Your task to perform on an android device: Open wifi settings Image 0: 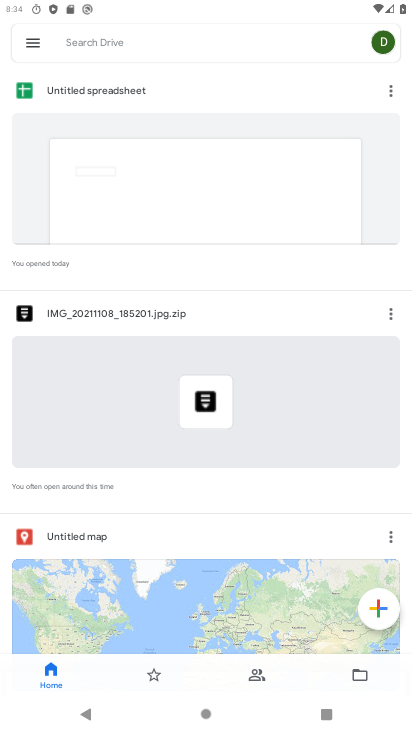
Step 0: press home button
Your task to perform on an android device: Open wifi settings Image 1: 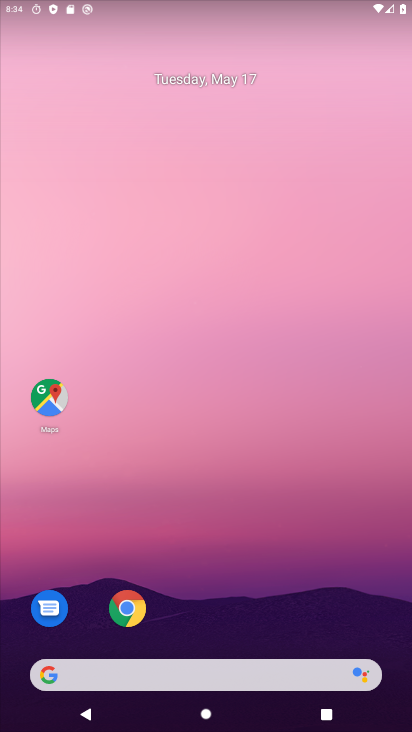
Step 1: drag from (316, 623) to (339, 166)
Your task to perform on an android device: Open wifi settings Image 2: 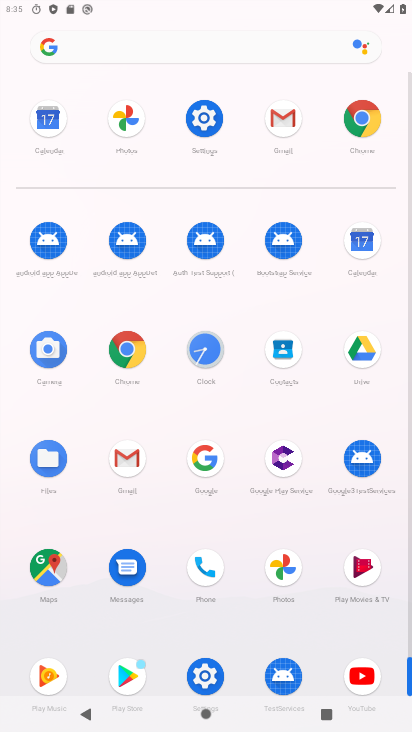
Step 2: click (203, 683)
Your task to perform on an android device: Open wifi settings Image 3: 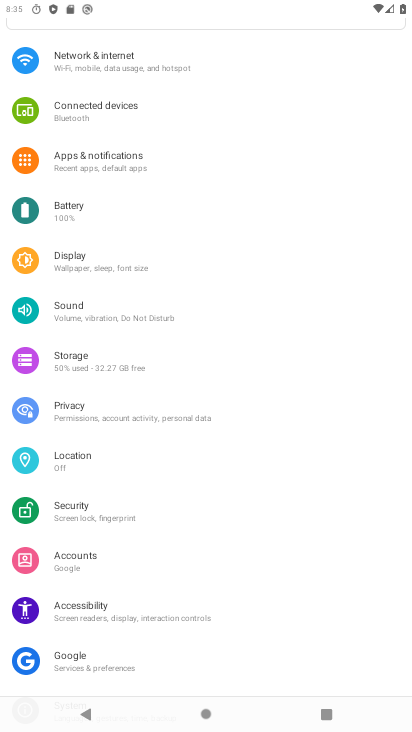
Step 3: drag from (179, 528) to (241, 175)
Your task to perform on an android device: Open wifi settings Image 4: 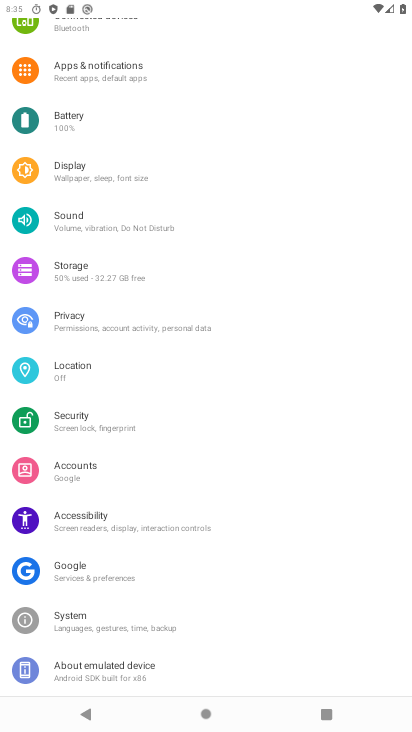
Step 4: drag from (225, 112) to (203, 655)
Your task to perform on an android device: Open wifi settings Image 5: 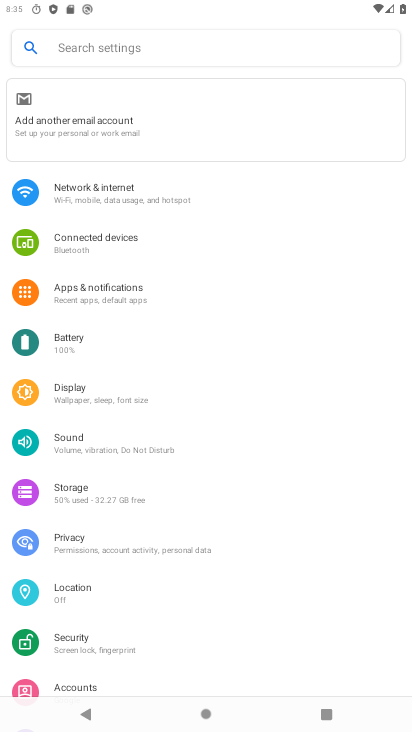
Step 5: drag from (216, 526) to (245, 217)
Your task to perform on an android device: Open wifi settings Image 6: 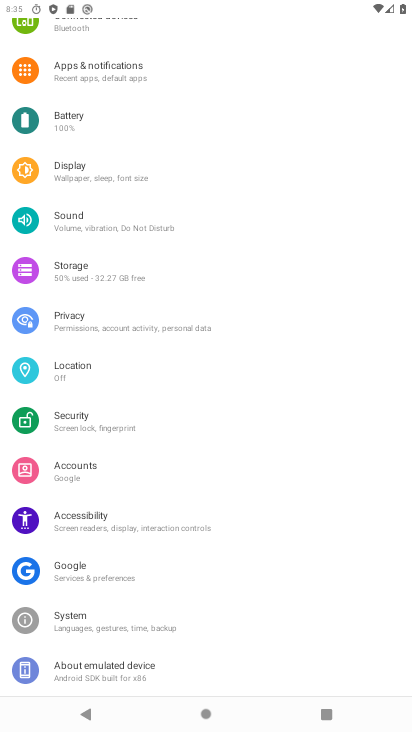
Step 6: drag from (179, 155) to (185, 492)
Your task to perform on an android device: Open wifi settings Image 7: 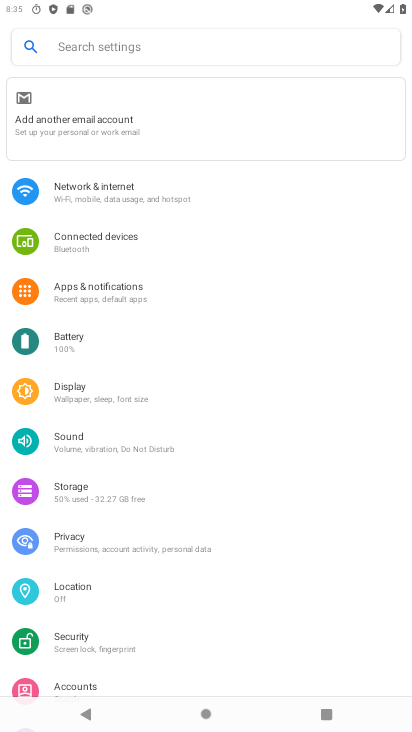
Step 7: click (99, 187)
Your task to perform on an android device: Open wifi settings Image 8: 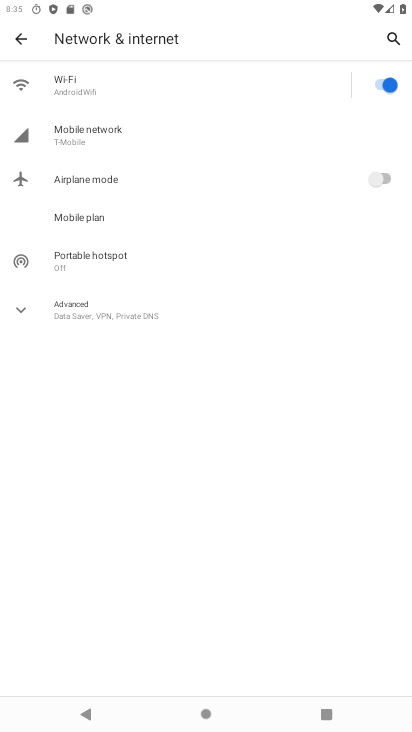
Step 8: click (120, 90)
Your task to perform on an android device: Open wifi settings Image 9: 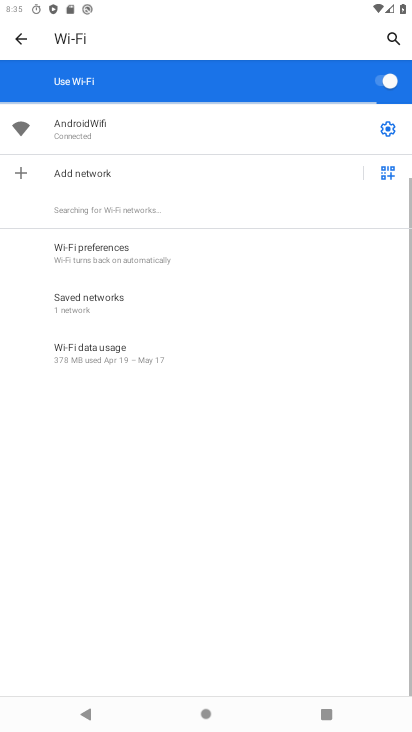
Step 9: click (383, 130)
Your task to perform on an android device: Open wifi settings Image 10: 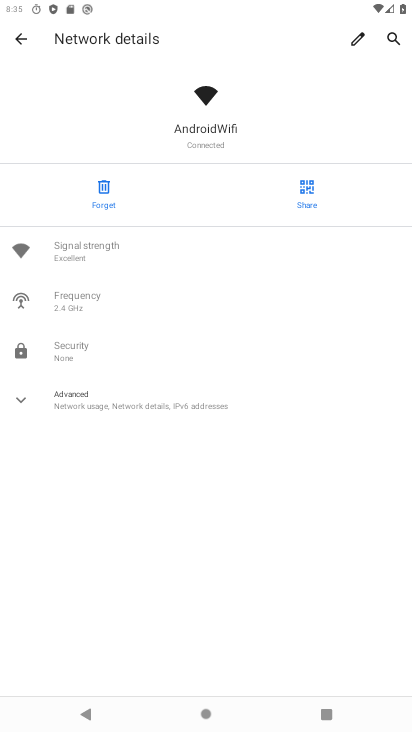
Step 10: task complete